Your task to perform on an android device: Add "logitech g pro" to the cart on costco.com Image 0: 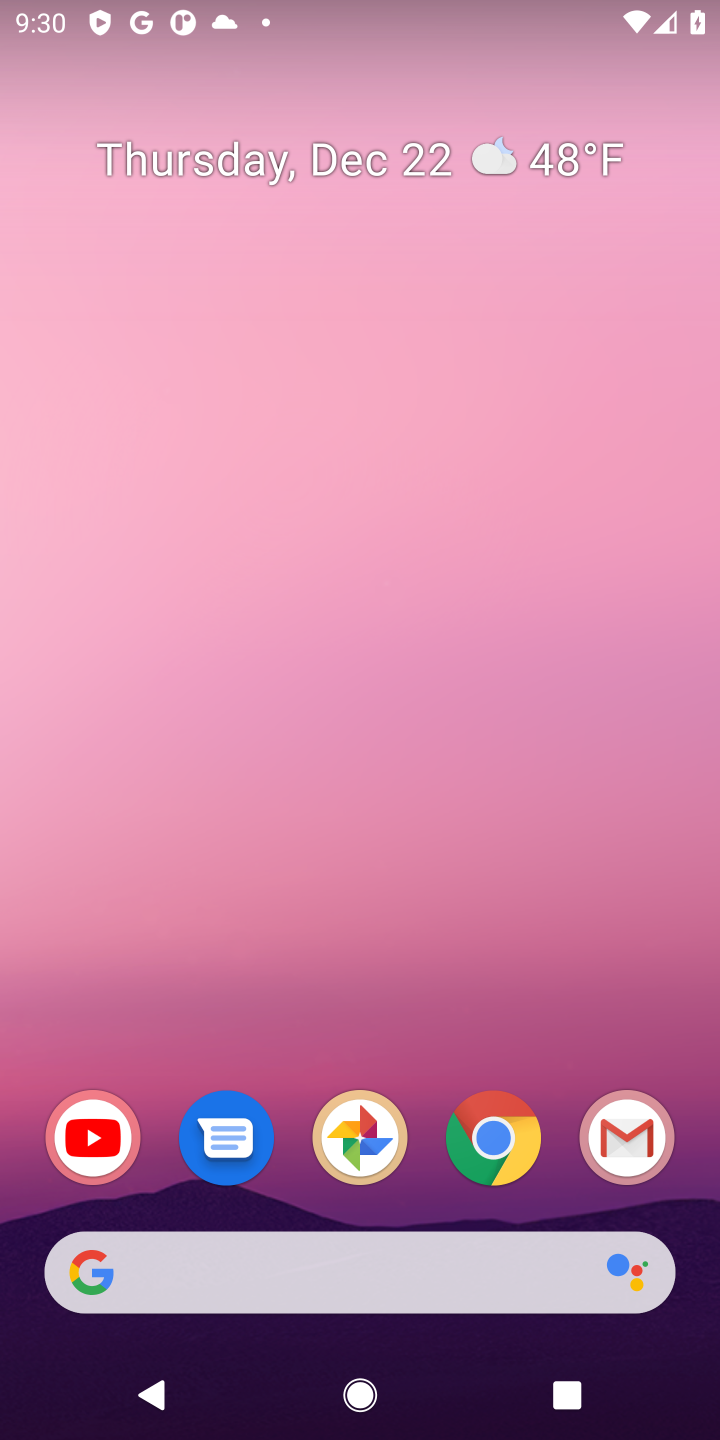
Step 0: click (488, 1152)
Your task to perform on an android device: Add "logitech g pro" to the cart on costco.com Image 1: 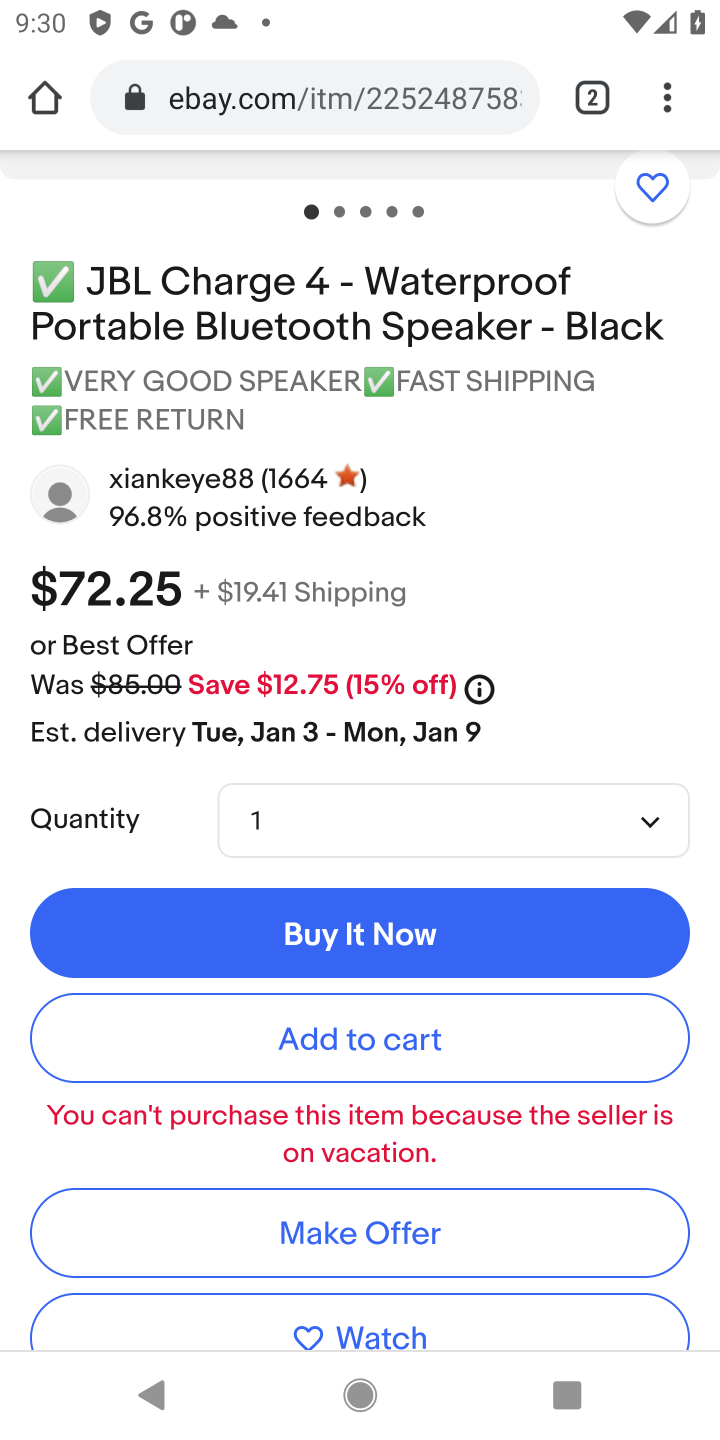
Step 1: click (243, 106)
Your task to perform on an android device: Add "logitech g pro" to the cart on costco.com Image 2: 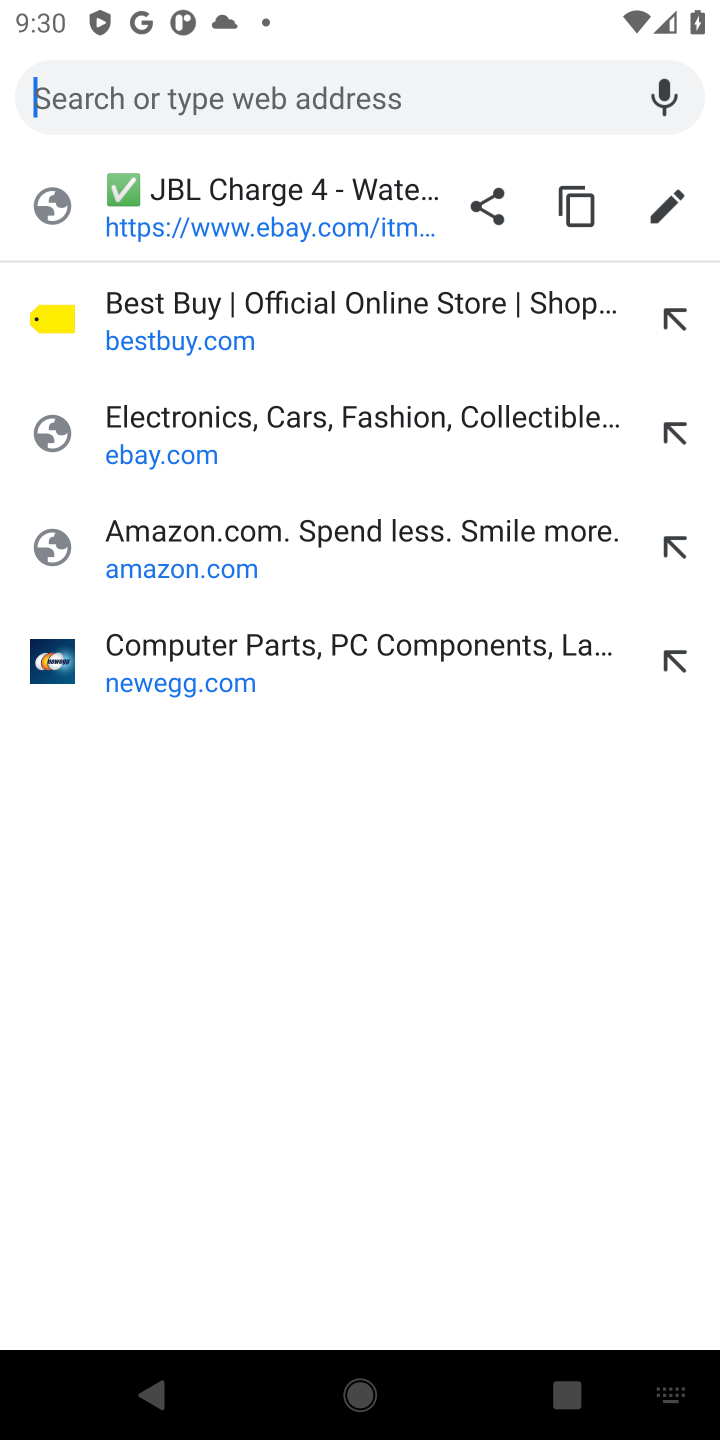
Step 2: type "costco.com"
Your task to perform on an android device: Add "logitech g pro" to the cart on costco.com Image 3: 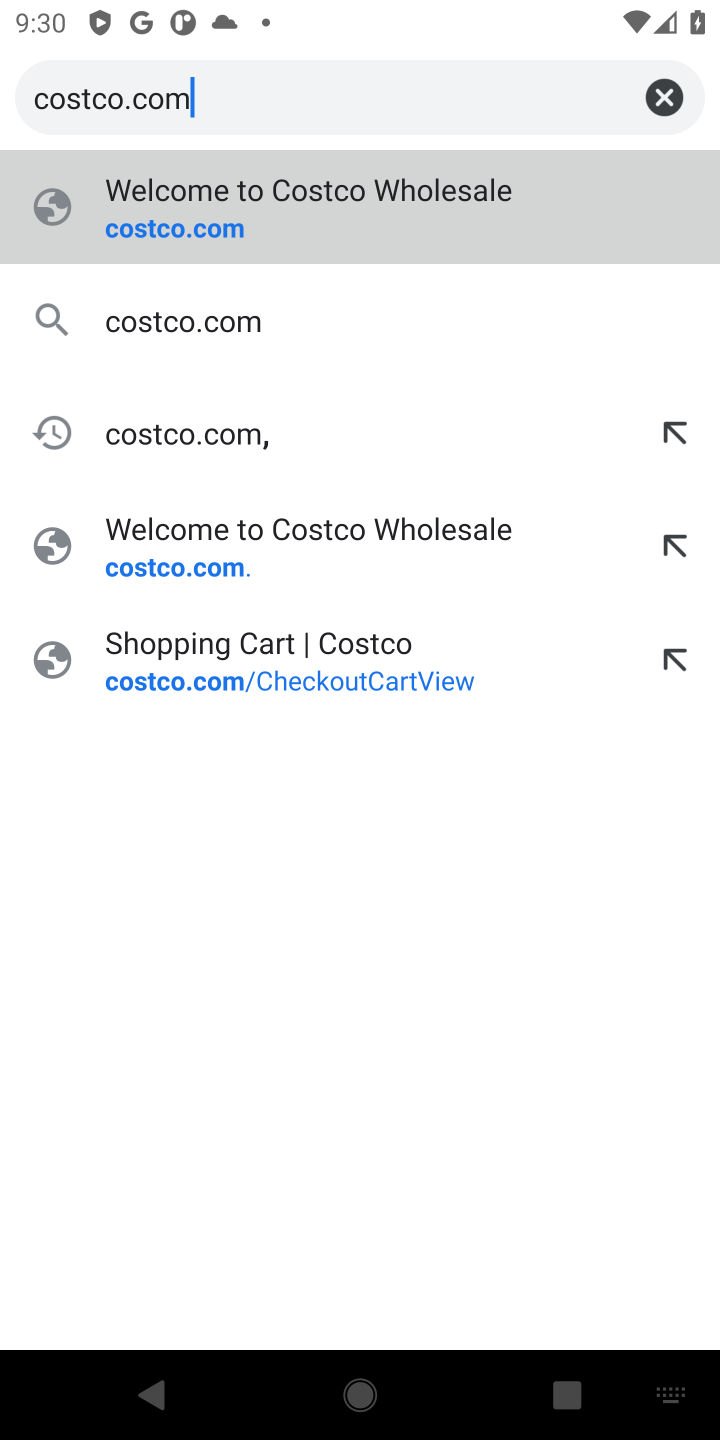
Step 3: click (299, 227)
Your task to perform on an android device: Add "logitech g pro" to the cart on costco.com Image 4: 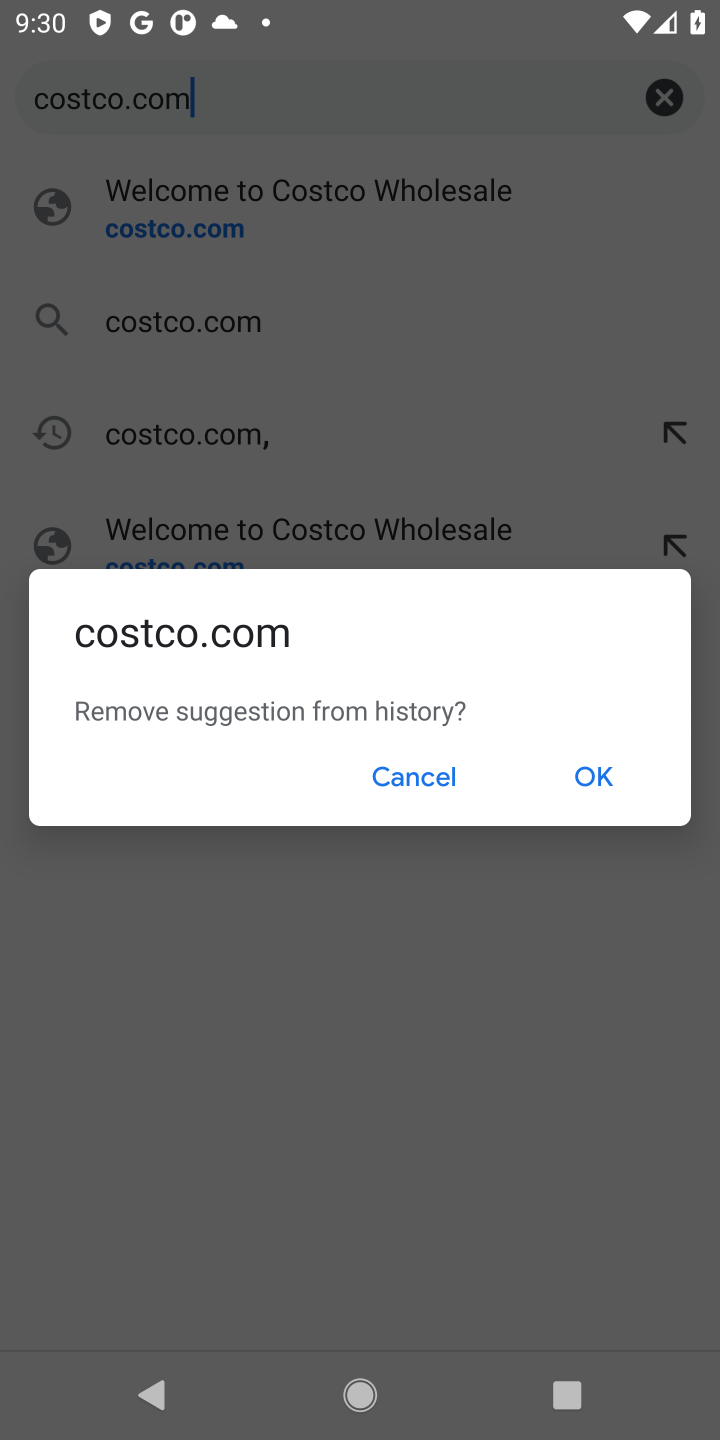
Step 4: click (427, 793)
Your task to perform on an android device: Add "logitech g pro" to the cart on costco.com Image 5: 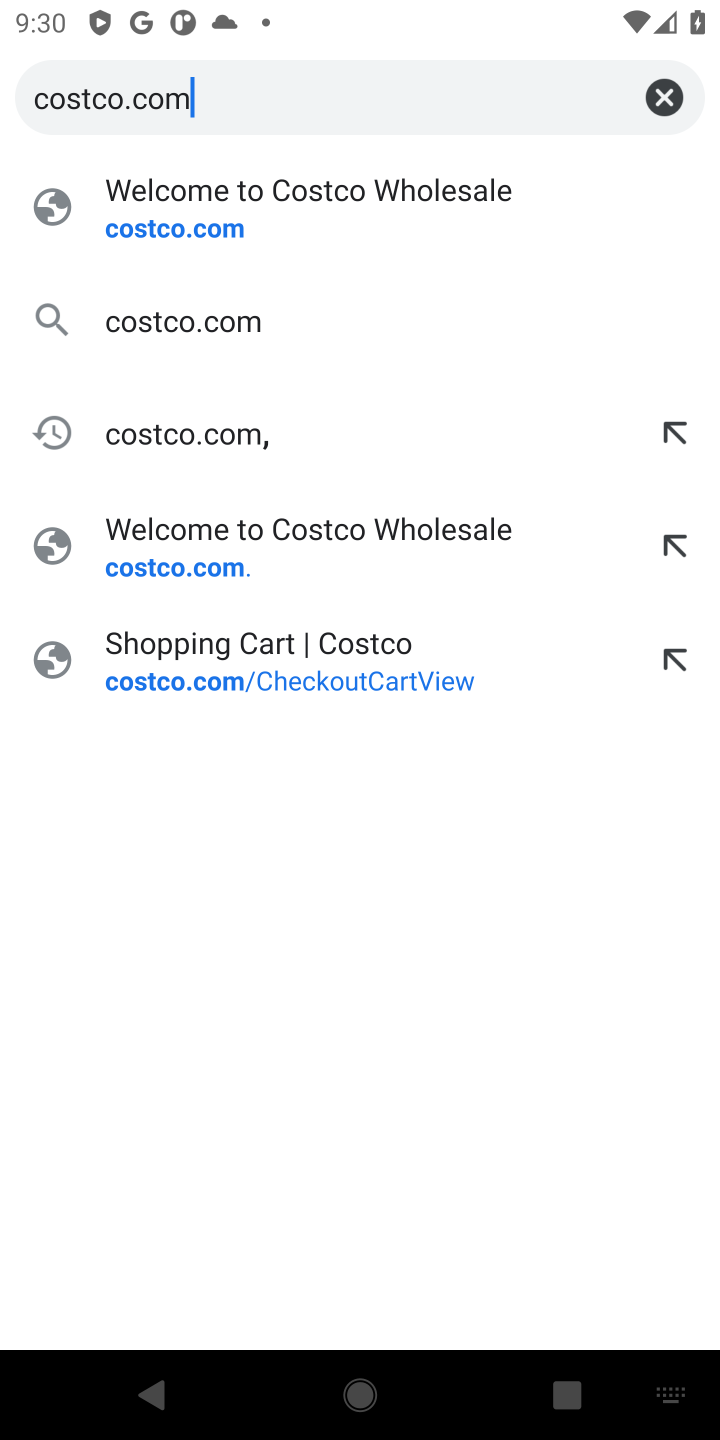
Step 5: press enter
Your task to perform on an android device: Add "logitech g pro" to the cart on costco.com Image 6: 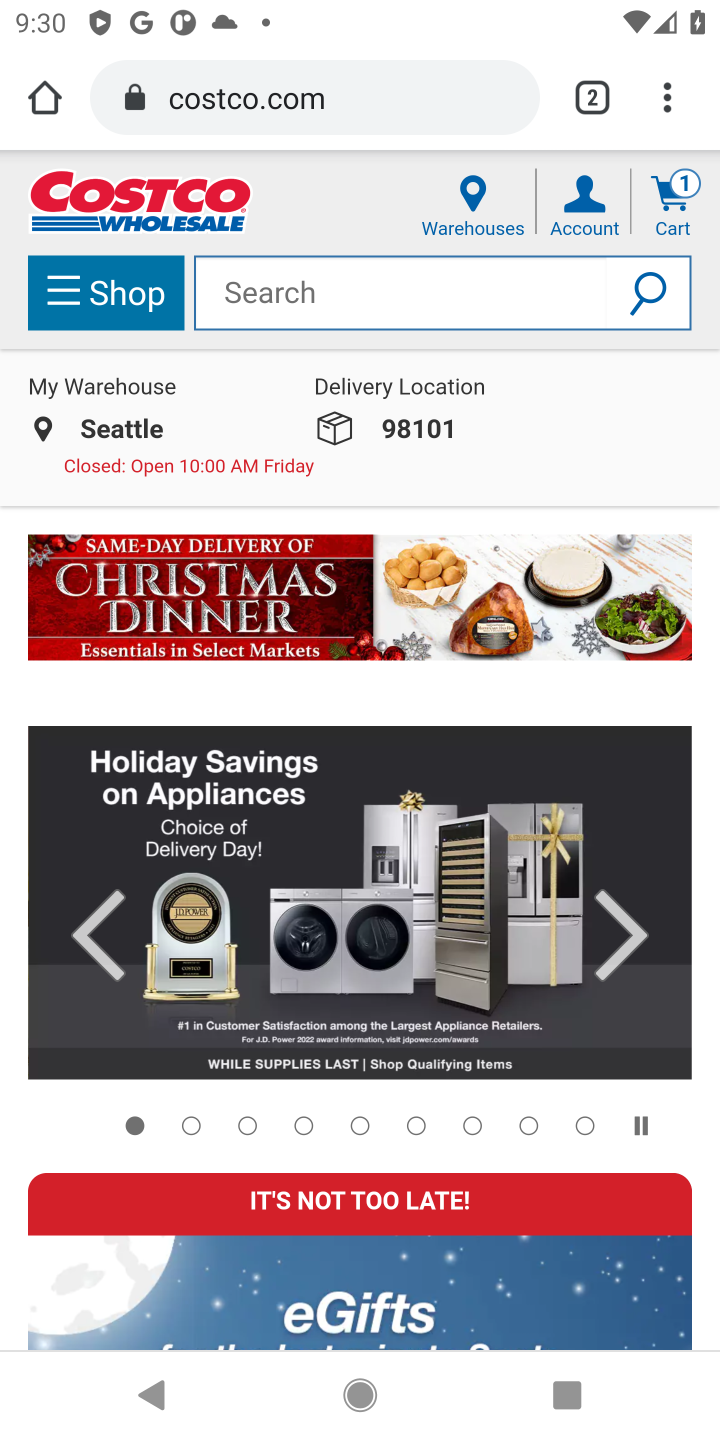
Step 6: click (354, 307)
Your task to perform on an android device: Add "logitech g pro" to the cart on costco.com Image 7: 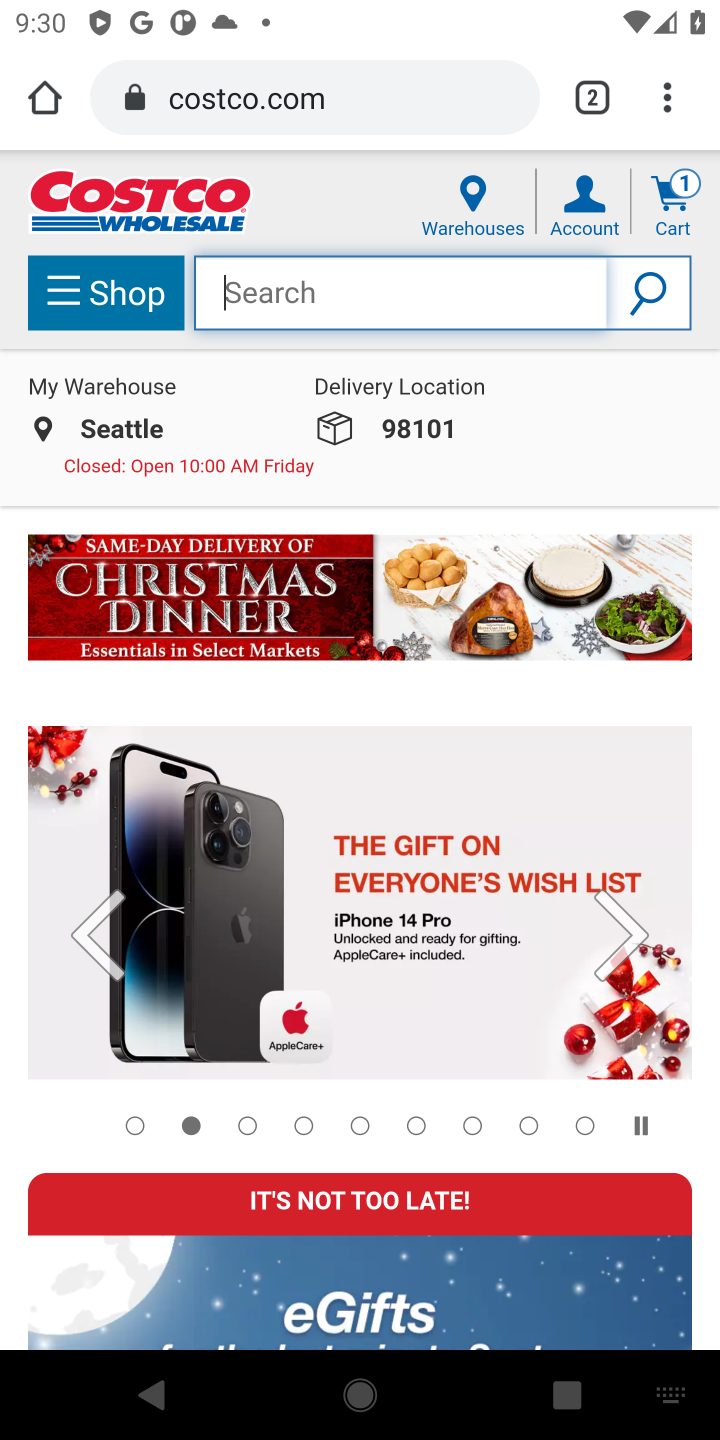
Step 7: type "logitech g pro"
Your task to perform on an android device: Add "logitech g pro" to the cart on costco.com Image 8: 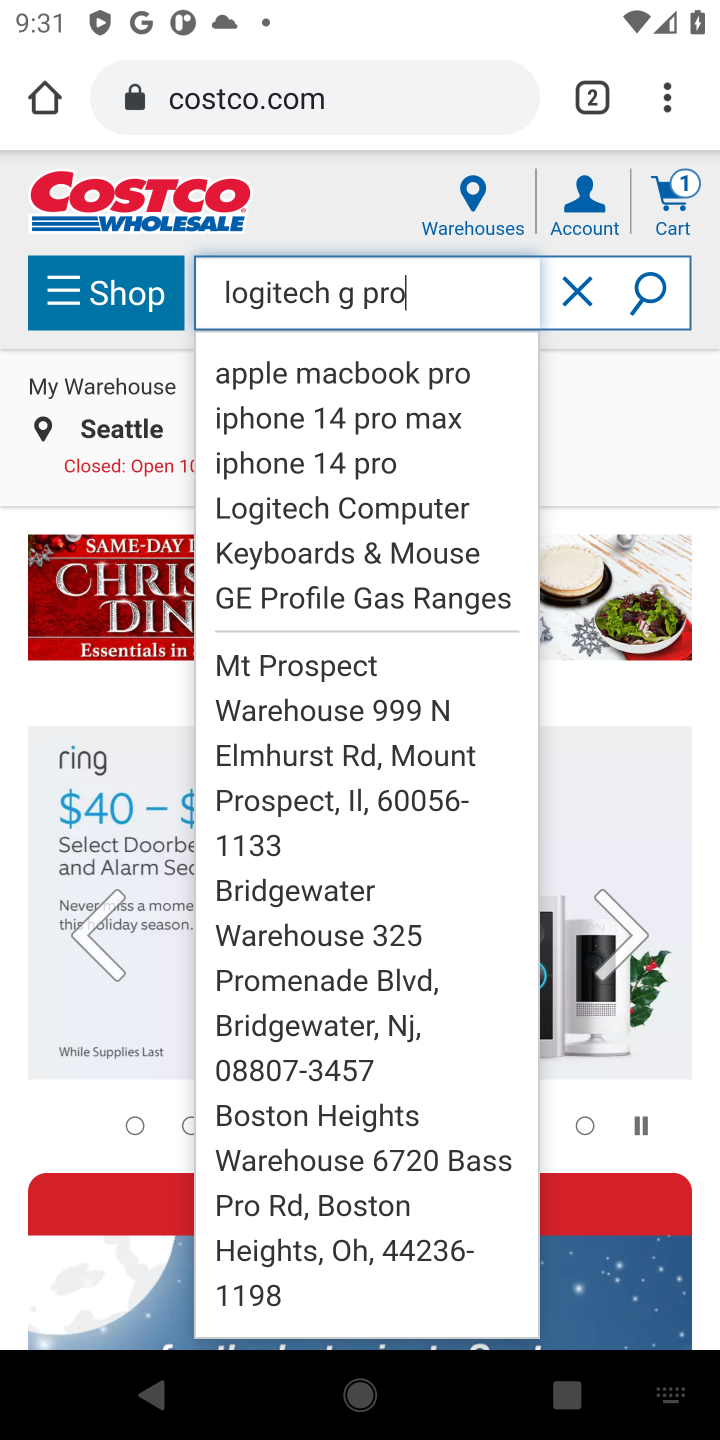
Step 8: press enter
Your task to perform on an android device: Add "logitech g pro" to the cart on costco.com Image 9: 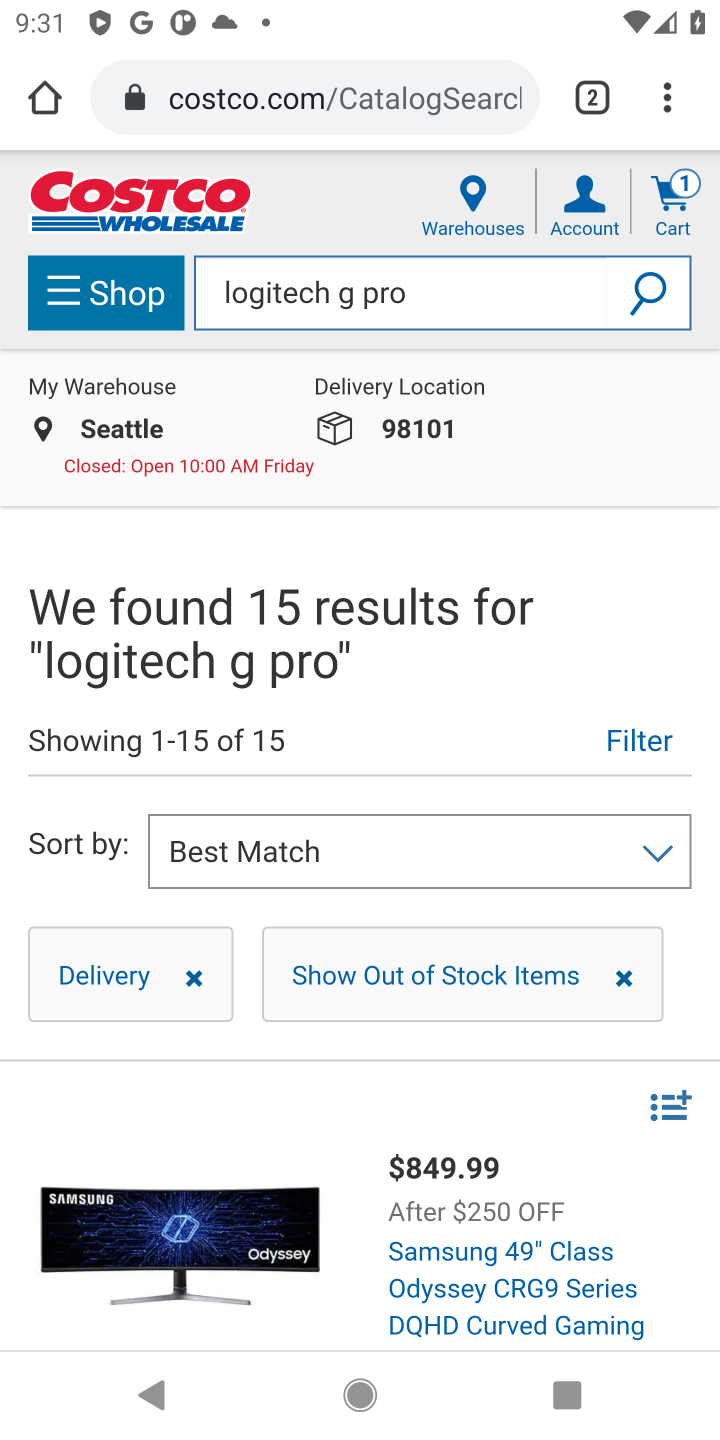
Step 9: task complete